Your task to perform on an android device: Set the phone to "Do not disturb". Image 0: 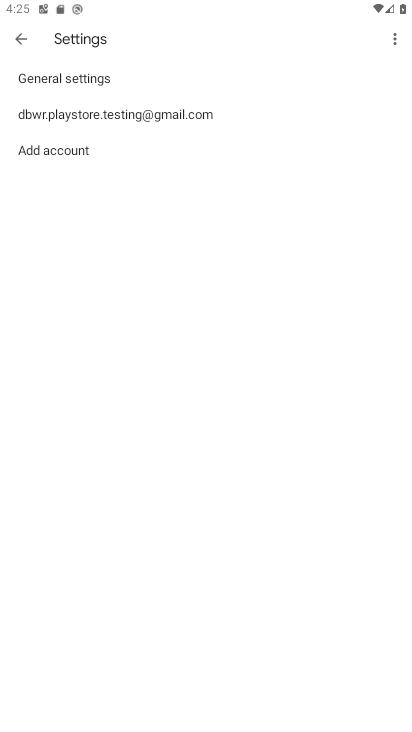
Step 0: press home button
Your task to perform on an android device: Set the phone to "Do not disturb". Image 1: 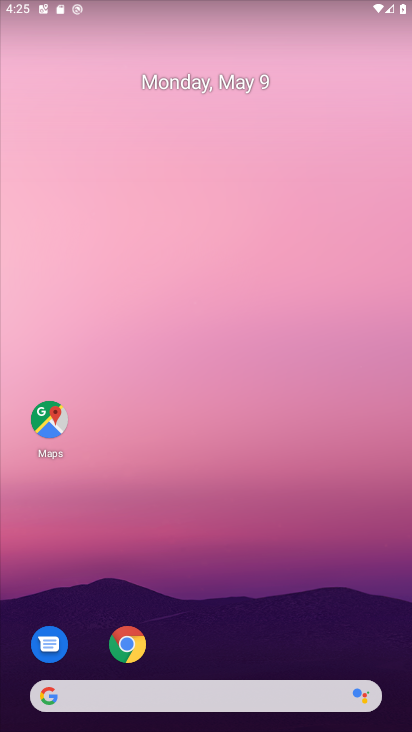
Step 1: drag from (215, 373) to (206, 107)
Your task to perform on an android device: Set the phone to "Do not disturb". Image 2: 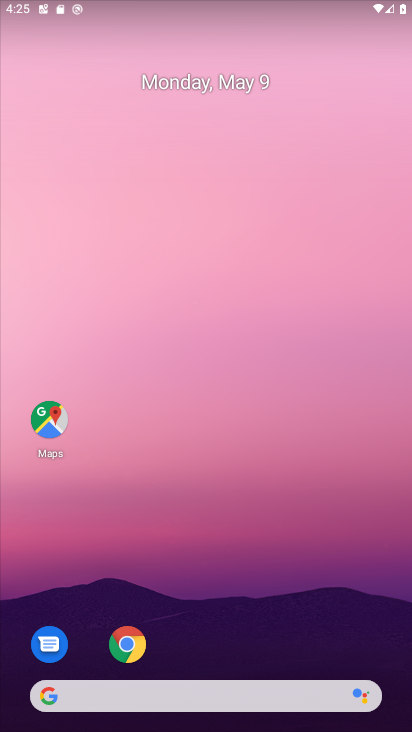
Step 2: drag from (208, 540) to (178, 62)
Your task to perform on an android device: Set the phone to "Do not disturb". Image 3: 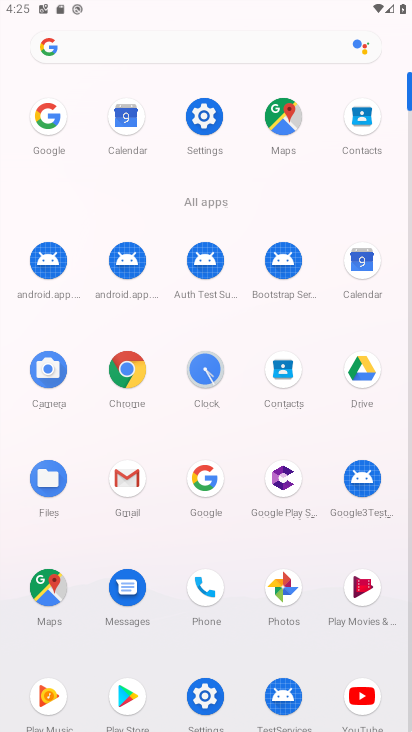
Step 3: click (201, 115)
Your task to perform on an android device: Set the phone to "Do not disturb". Image 4: 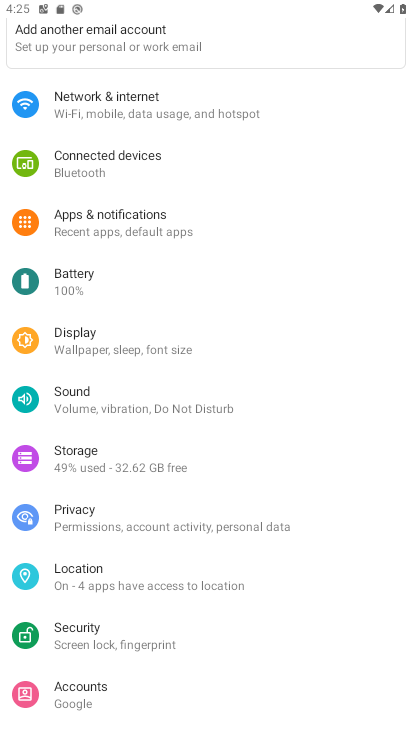
Step 4: click (166, 408)
Your task to perform on an android device: Set the phone to "Do not disturb". Image 5: 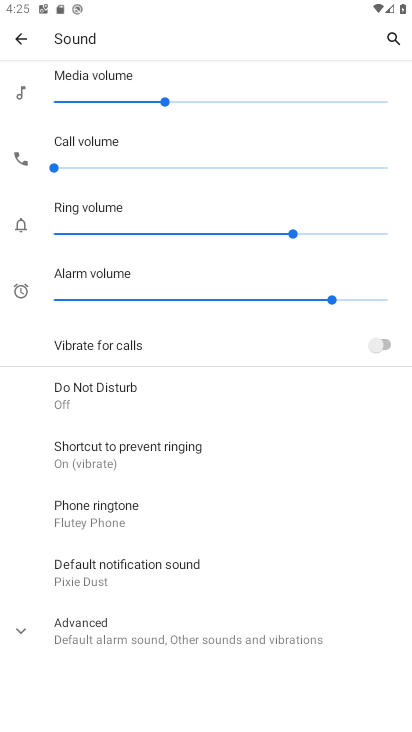
Step 5: click (126, 396)
Your task to perform on an android device: Set the phone to "Do not disturb". Image 6: 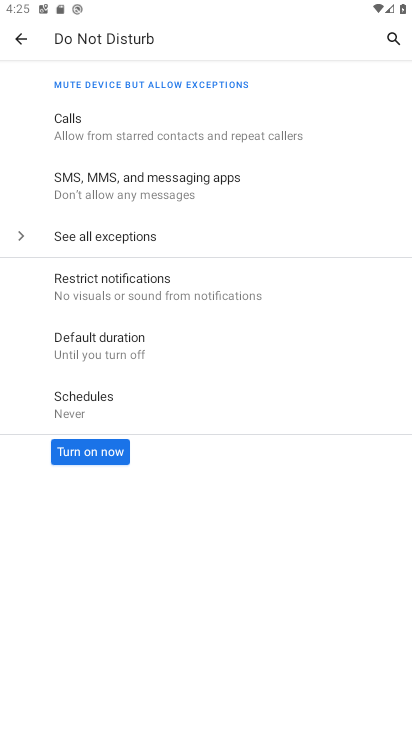
Step 6: click (99, 454)
Your task to perform on an android device: Set the phone to "Do not disturb". Image 7: 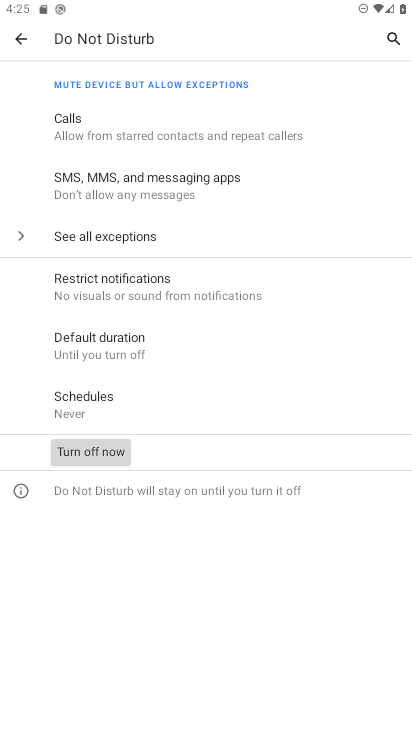
Step 7: task complete